Your task to perform on an android device: Open the stopwatch Image 0: 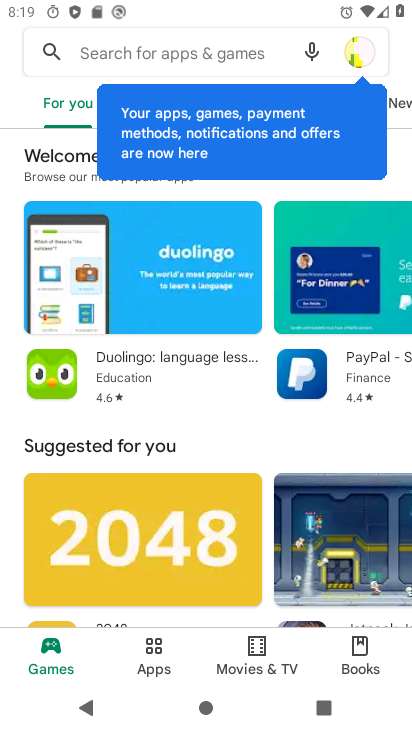
Step 0: press home button
Your task to perform on an android device: Open the stopwatch Image 1: 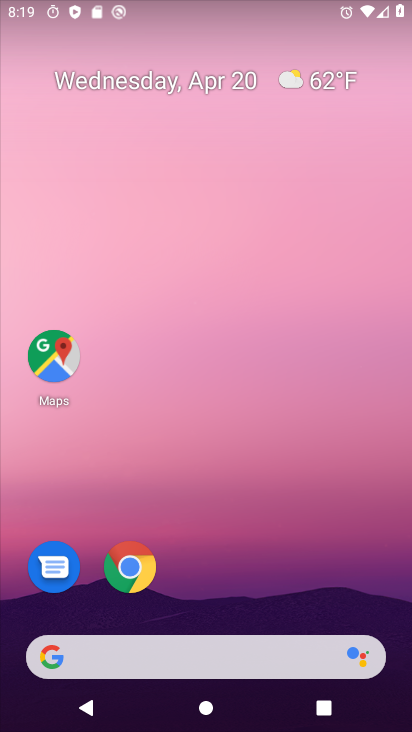
Step 1: drag from (335, 199) to (320, 2)
Your task to perform on an android device: Open the stopwatch Image 2: 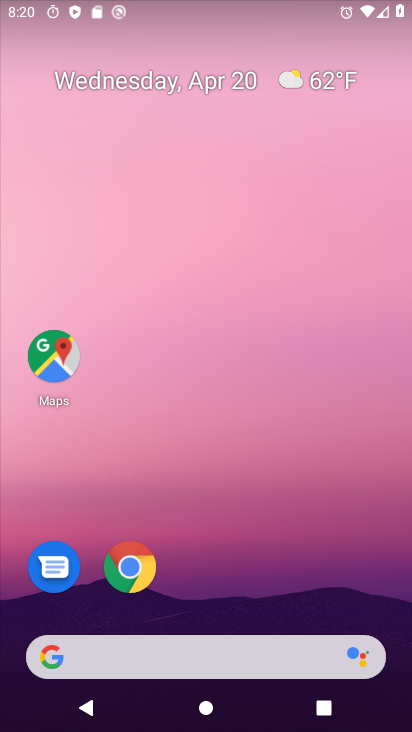
Step 2: drag from (382, 472) to (403, 10)
Your task to perform on an android device: Open the stopwatch Image 3: 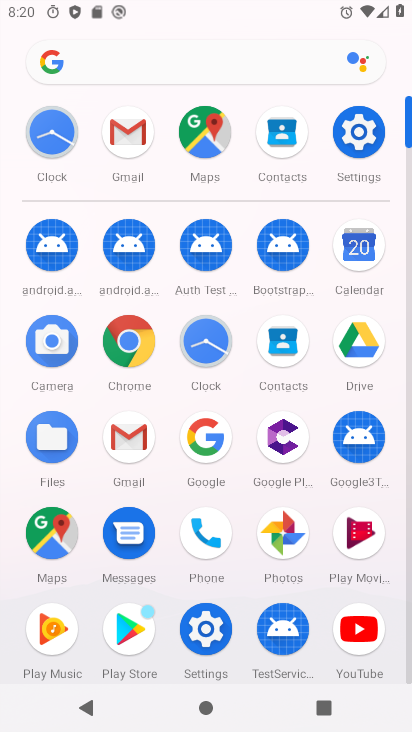
Step 3: click (46, 136)
Your task to perform on an android device: Open the stopwatch Image 4: 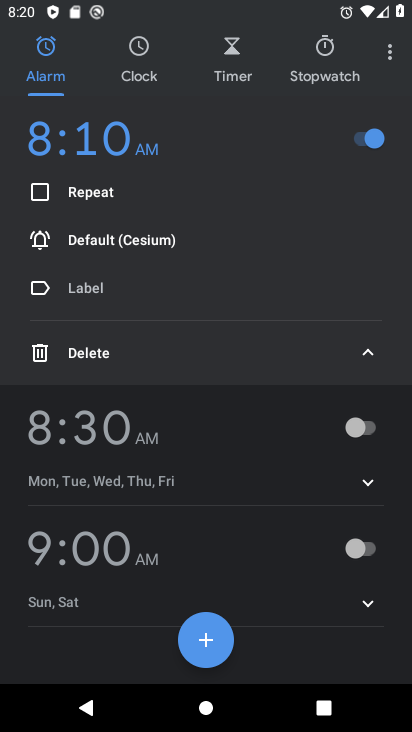
Step 4: click (322, 60)
Your task to perform on an android device: Open the stopwatch Image 5: 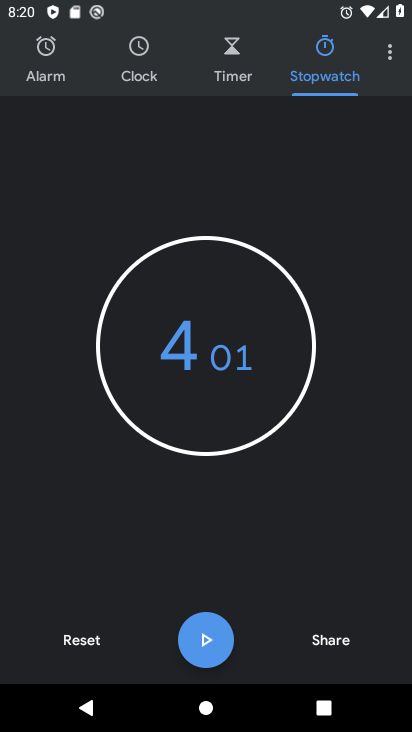
Step 5: task complete